Your task to perform on an android device: Add usb-c to usb-b to the cart on walmart, then select checkout. Image 0: 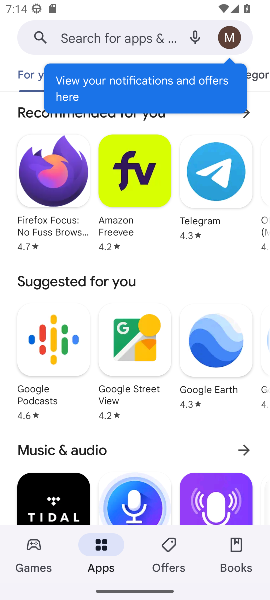
Step 0: press home button
Your task to perform on an android device: Add usb-c to usb-b to the cart on walmart, then select checkout. Image 1: 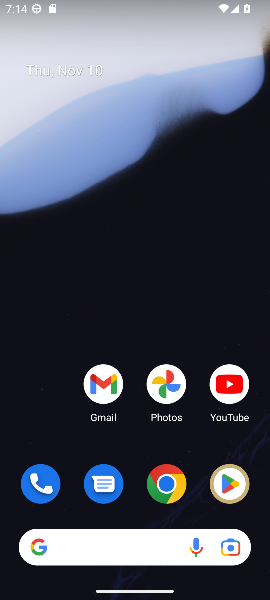
Step 1: click (164, 486)
Your task to perform on an android device: Add usb-c to usb-b to the cart on walmart, then select checkout. Image 2: 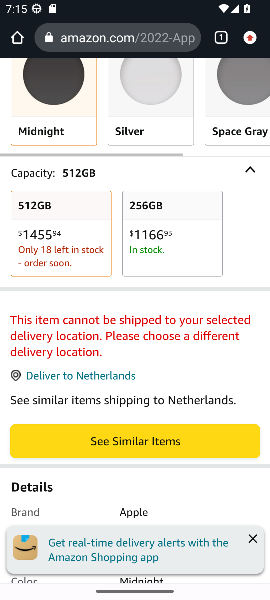
Step 2: click (113, 40)
Your task to perform on an android device: Add usb-c to usb-b to the cart on walmart, then select checkout. Image 3: 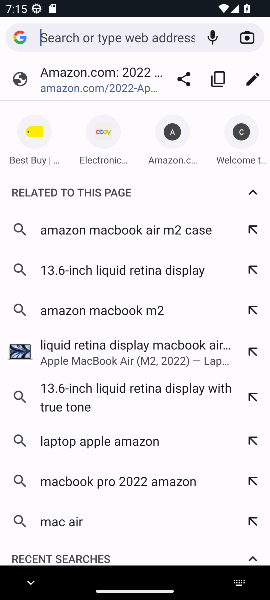
Step 3: type "walmart.com"
Your task to perform on an android device: Add usb-c to usb-b to the cart on walmart, then select checkout. Image 4: 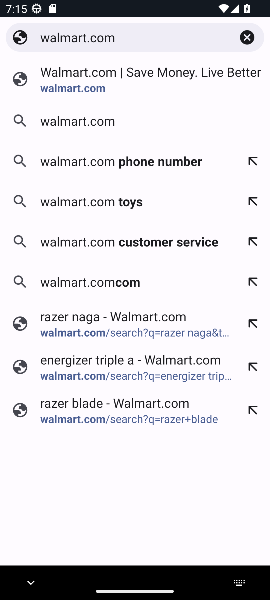
Step 4: click (97, 122)
Your task to perform on an android device: Add usb-c to usb-b to the cart on walmart, then select checkout. Image 5: 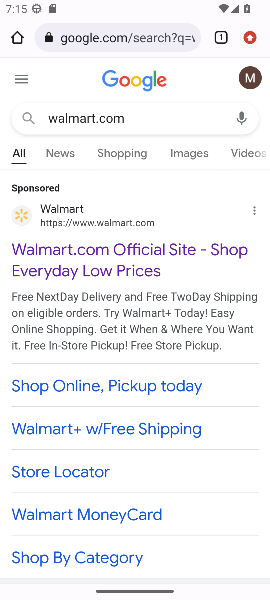
Step 5: drag from (103, 447) to (106, 221)
Your task to perform on an android device: Add usb-c to usb-b to the cart on walmart, then select checkout. Image 6: 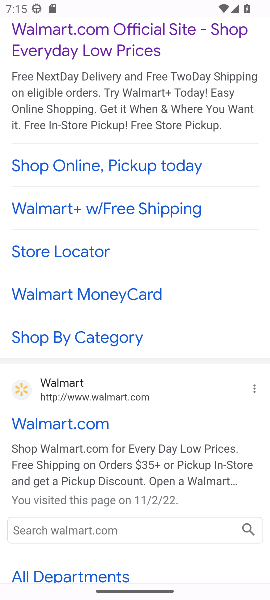
Step 6: click (57, 396)
Your task to perform on an android device: Add usb-c to usb-b to the cart on walmart, then select checkout. Image 7: 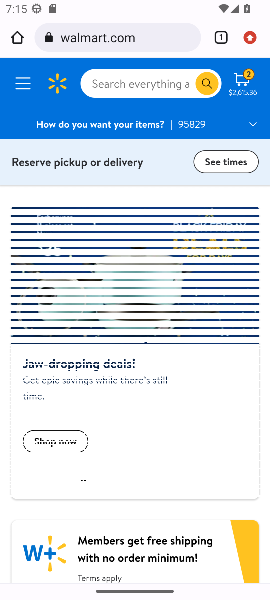
Step 7: click (110, 84)
Your task to perform on an android device: Add usb-c to usb-b to the cart on walmart, then select checkout. Image 8: 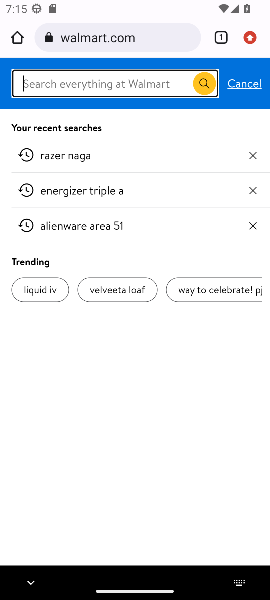
Step 8: type "usb-c to usb-b "
Your task to perform on an android device: Add usb-c to usb-b to the cart on walmart, then select checkout. Image 9: 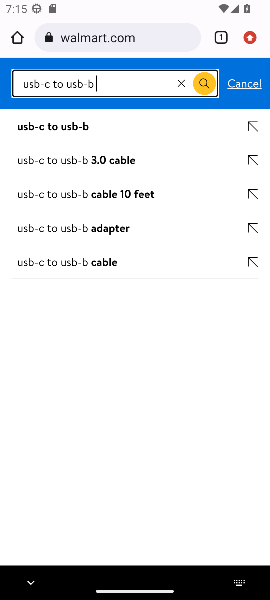
Step 9: click (58, 132)
Your task to perform on an android device: Add usb-c to usb-b to the cart on walmart, then select checkout. Image 10: 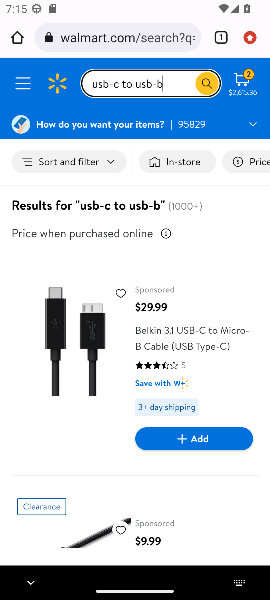
Step 10: drag from (86, 407) to (97, 251)
Your task to perform on an android device: Add usb-c to usb-b to the cart on walmart, then select checkout. Image 11: 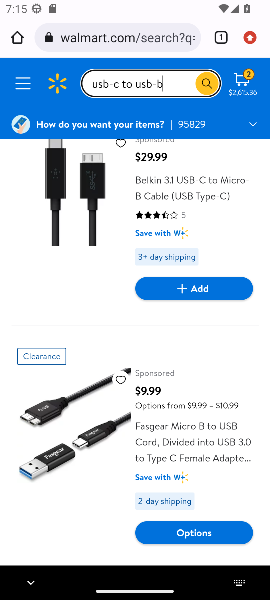
Step 11: drag from (82, 286) to (66, 351)
Your task to perform on an android device: Add usb-c to usb-b to the cart on walmart, then select checkout. Image 12: 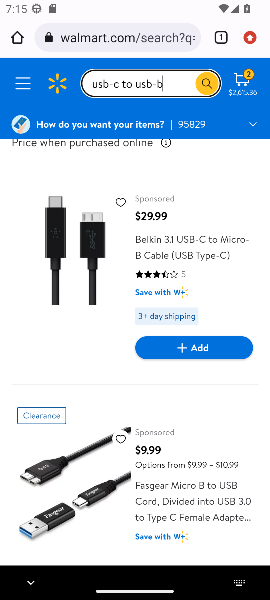
Step 12: click (200, 350)
Your task to perform on an android device: Add usb-c to usb-b to the cart on walmart, then select checkout. Image 13: 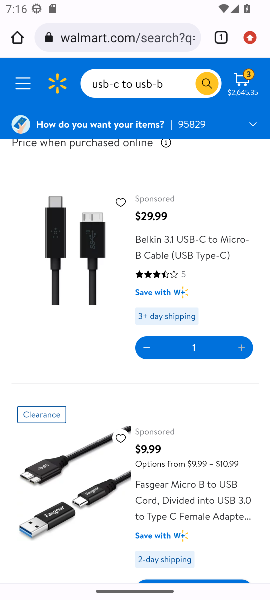
Step 13: click (244, 83)
Your task to perform on an android device: Add usb-c to usb-b to the cart on walmart, then select checkout. Image 14: 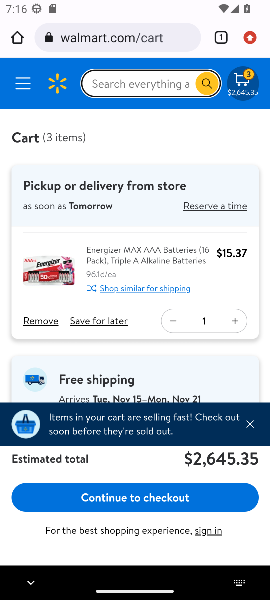
Step 14: click (147, 509)
Your task to perform on an android device: Add usb-c to usb-b to the cart on walmart, then select checkout. Image 15: 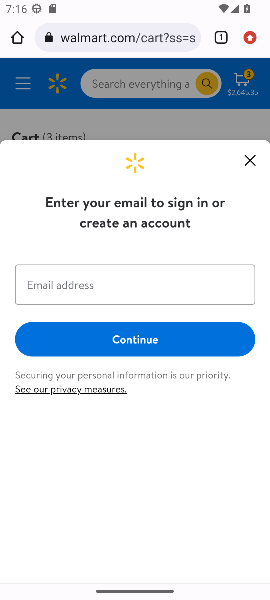
Step 15: task complete